Your task to perform on an android device: toggle show notifications on the lock screen Image 0: 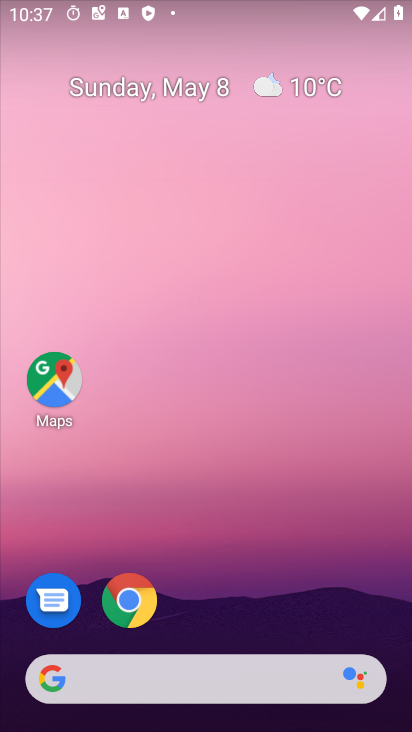
Step 0: drag from (262, 629) to (313, 384)
Your task to perform on an android device: toggle show notifications on the lock screen Image 1: 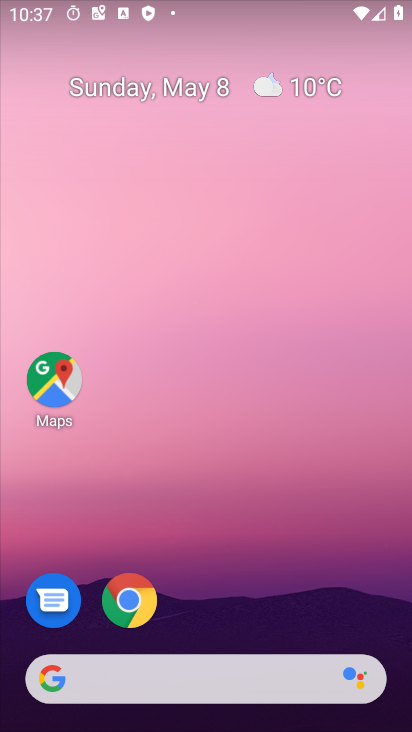
Step 1: drag from (248, 520) to (251, 289)
Your task to perform on an android device: toggle show notifications on the lock screen Image 2: 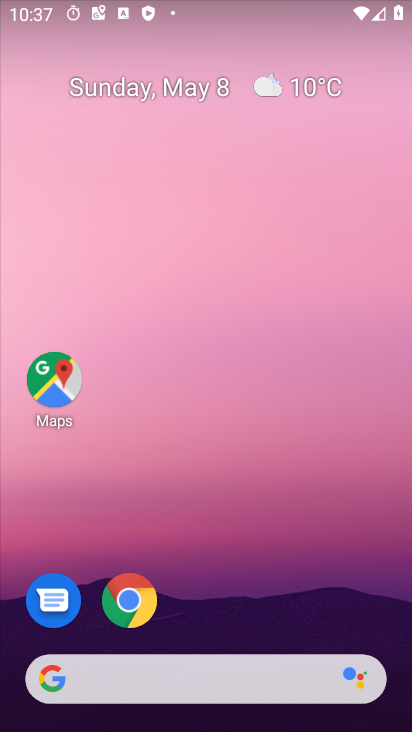
Step 2: drag from (224, 659) to (281, 293)
Your task to perform on an android device: toggle show notifications on the lock screen Image 3: 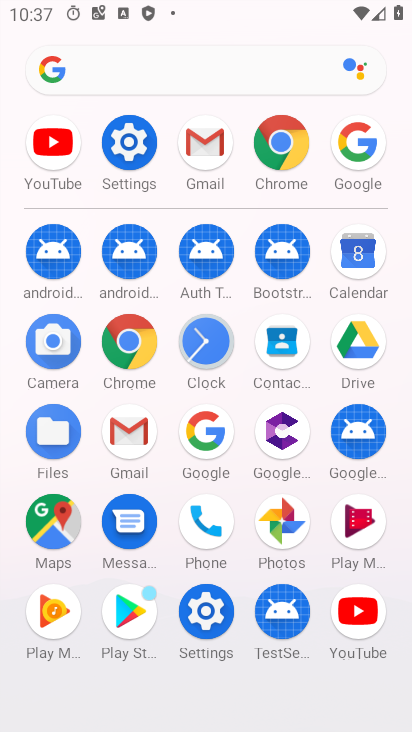
Step 3: click (127, 149)
Your task to perform on an android device: toggle show notifications on the lock screen Image 4: 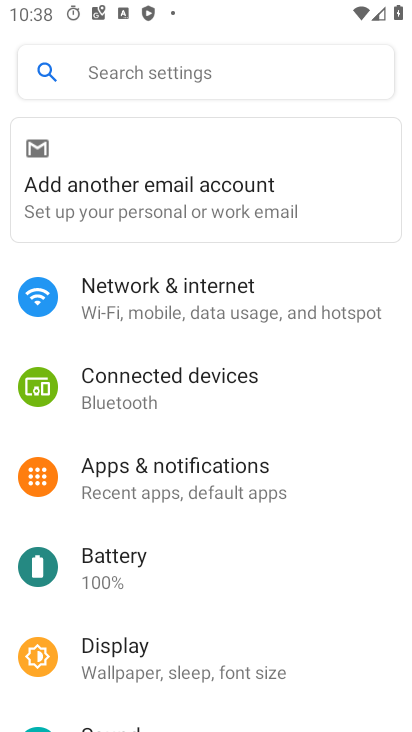
Step 4: drag from (164, 590) to (225, 347)
Your task to perform on an android device: toggle show notifications on the lock screen Image 5: 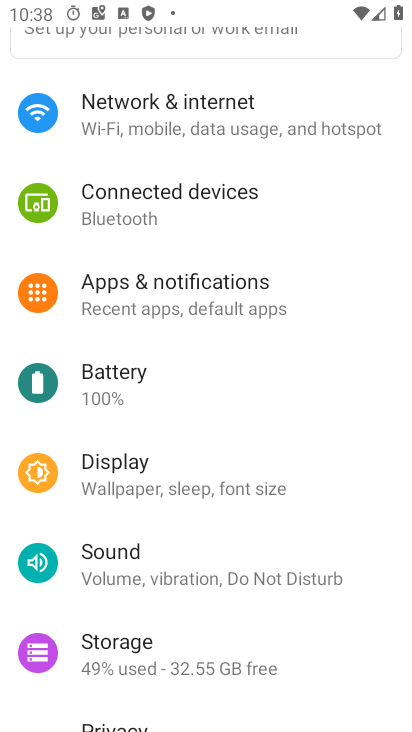
Step 5: click (231, 299)
Your task to perform on an android device: toggle show notifications on the lock screen Image 6: 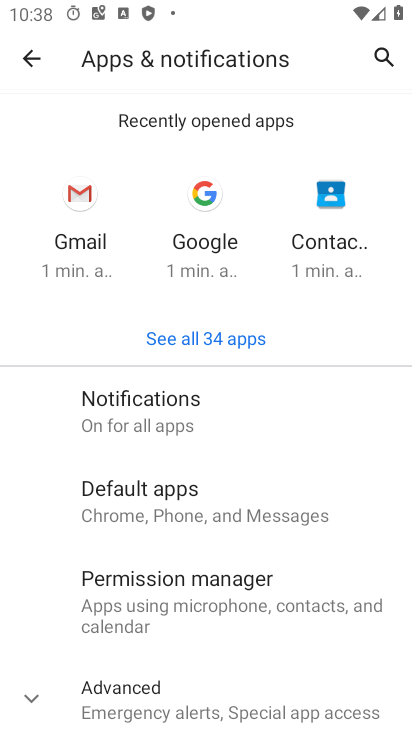
Step 6: click (232, 422)
Your task to perform on an android device: toggle show notifications on the lock screen Image 7: 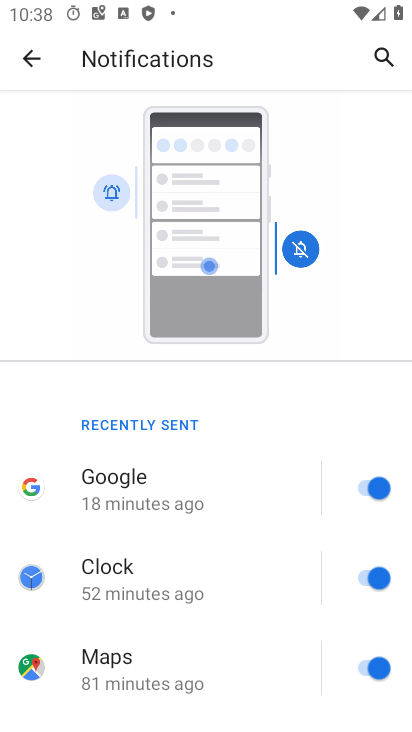
Step 7: drag from (256, 608) to (336, 62)
Your task to perform on an android device: toggle show notifications on the lock screen Image 8: 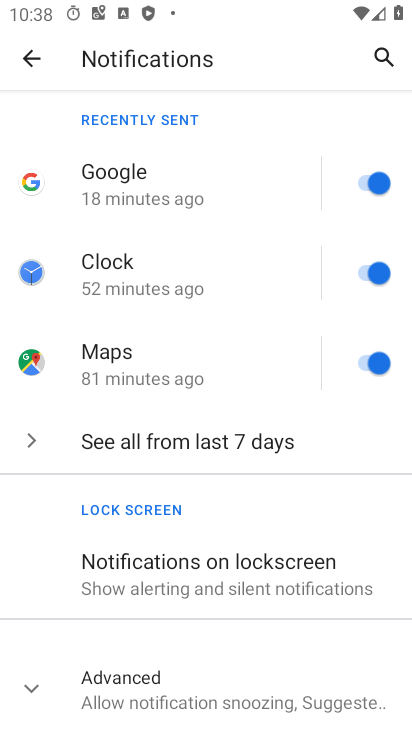
Step 8: click (229, 581)
Your task to perform on an android device: toggle show notifications on the lock screen Image 9: 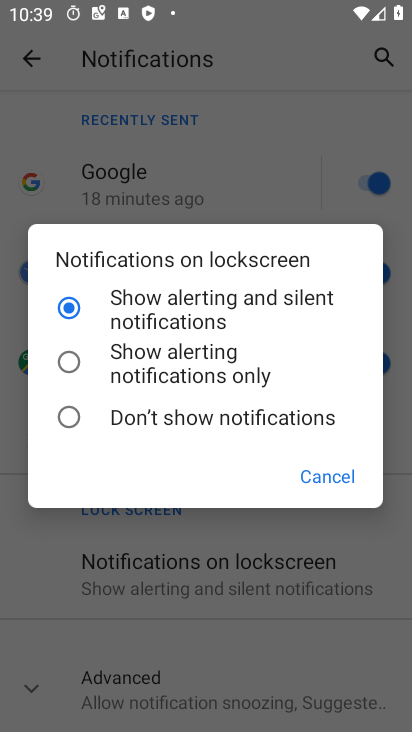
Step 9: click (72, 411)
Your task to perform on an android device: toggle show notifications on the lock screen Image 10: 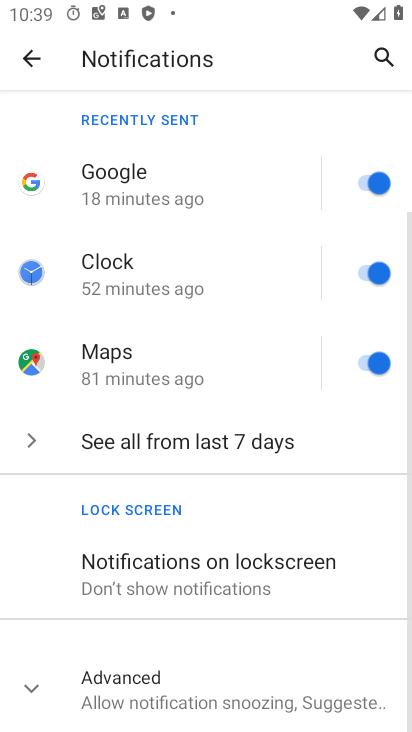
Step 10: task complete